Your task to perform on an android device: Open Maps and search for coffee Image 0: 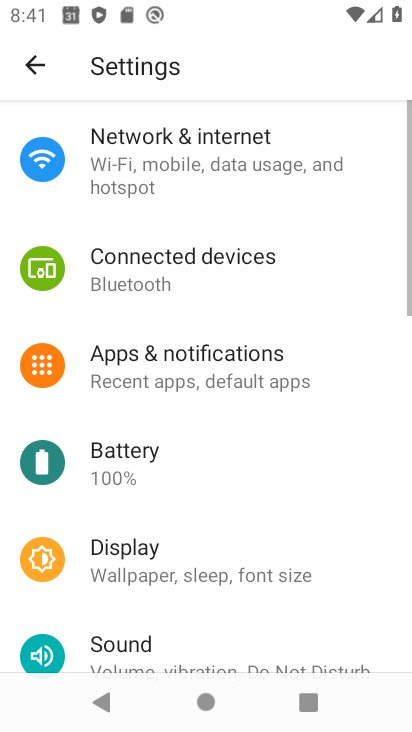
Step 0: press home button
Your task to perform on an android device: Open Maps and search for coffee Image 1: 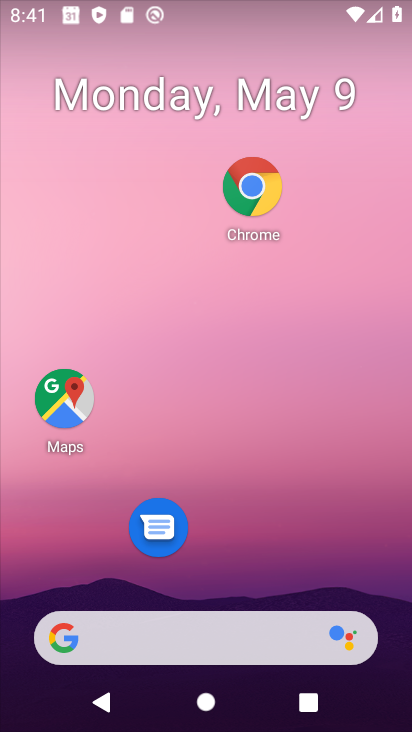
Step 1: click (58, 395)
Your task to perform on an android device: Open Maps and search for coffee Image 2: 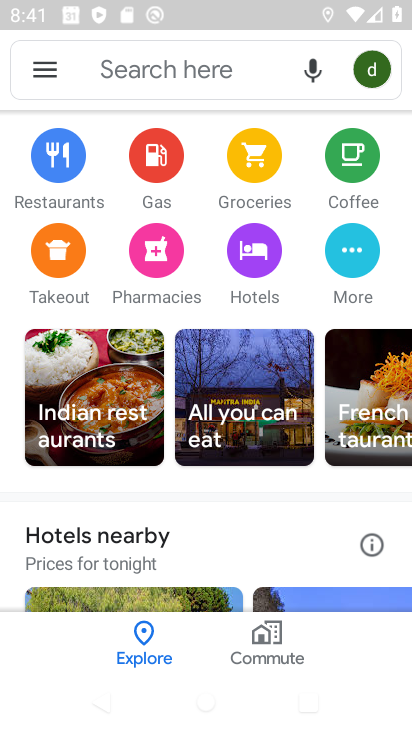
Step 2: click (138, 58)
Your task to perform on an android device: Open Maps and search for coffee Image 3: 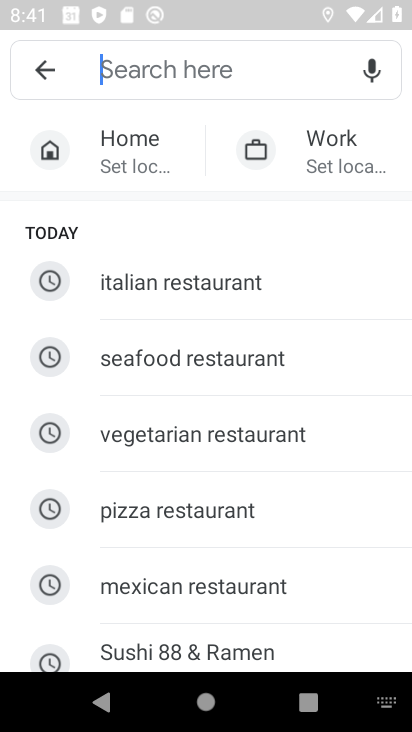
Step 3: type "coffee"
Your task to perform on an android device: Open Maps and search for coffee Image 4: 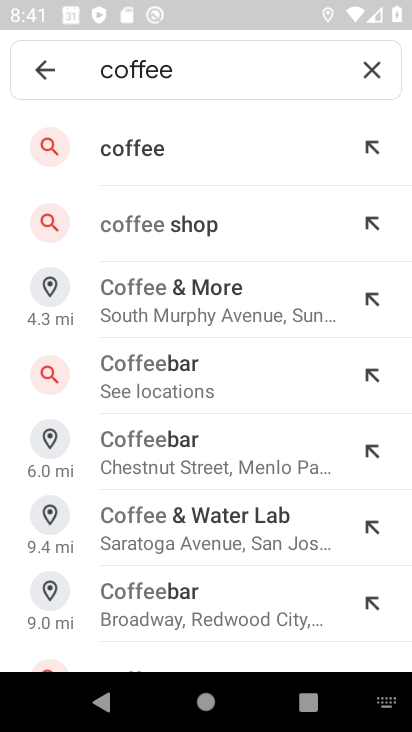
Step 4: click (191, 147)
Your task to perform on an android device: Open Maps and search for coffee Image 5: 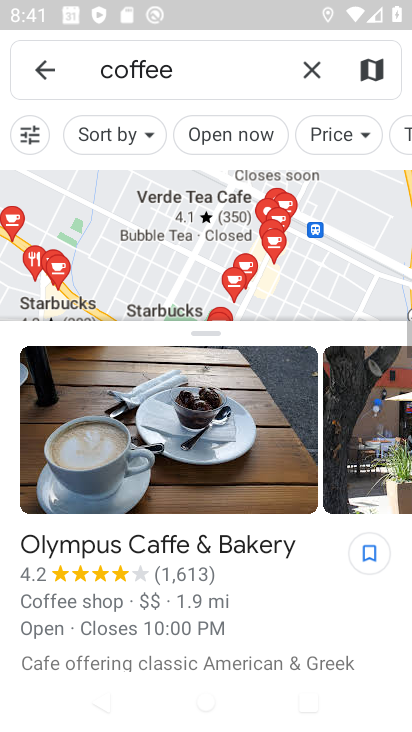
Step 5: task complete